Your task to perform on an android device: check android version Image 0: 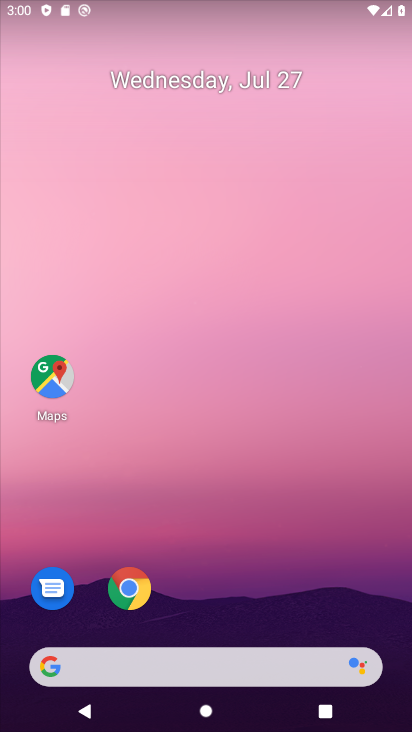
Step 0: drag from (313, 637) to (249, 184)
Your task to perform on an android device: check android version Image 1: 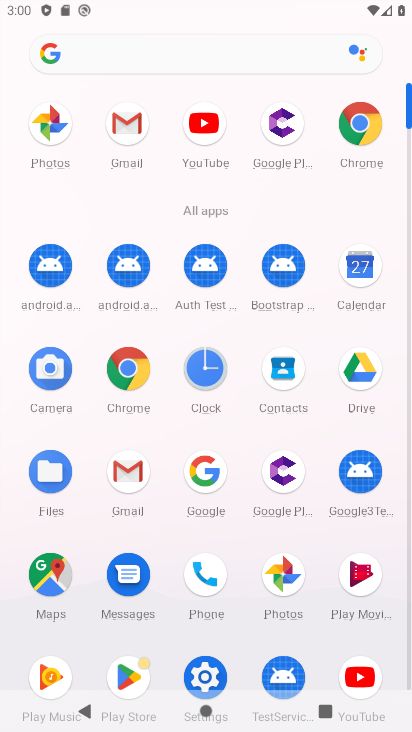
Step 1: click (210, 677)
Your task to perform on an android device: check android version Image 2: 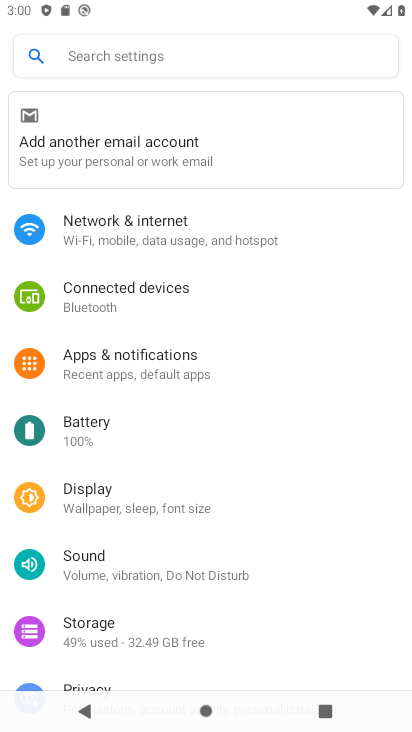
Step 2: drag from (188, 662) to (172, 155)
Your task to perform on an android device: check android version Image 3: 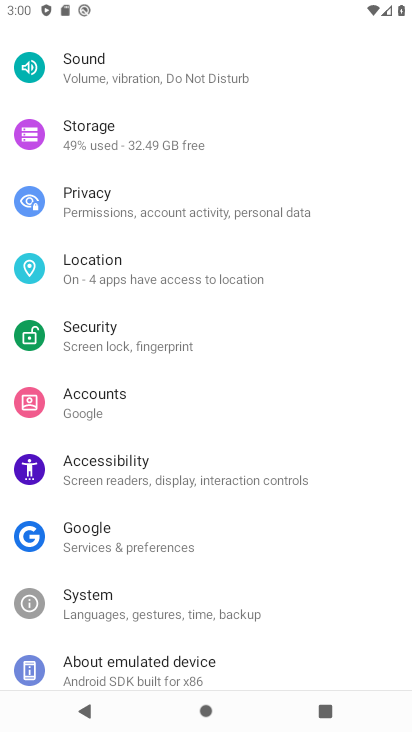
Step 3: click (176, 667)
Your task to perform on an android device: check android version Image 4: 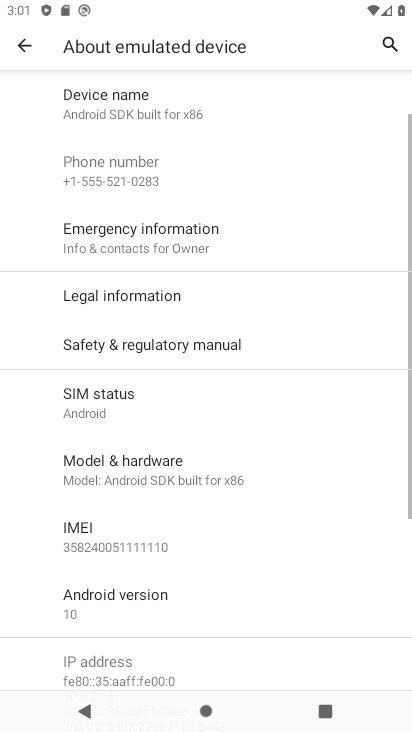
Step 4: click (189, 597)
Your task to perform on an android device: check android version Image 5: 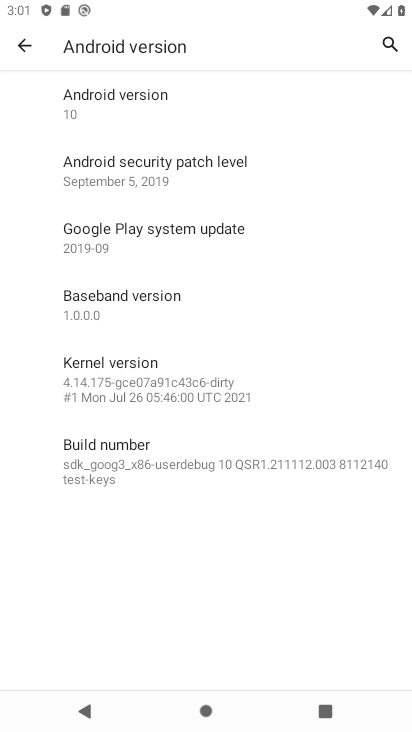
Step 5: task complete